Your task to perform on an android device: Open maps Image 0: 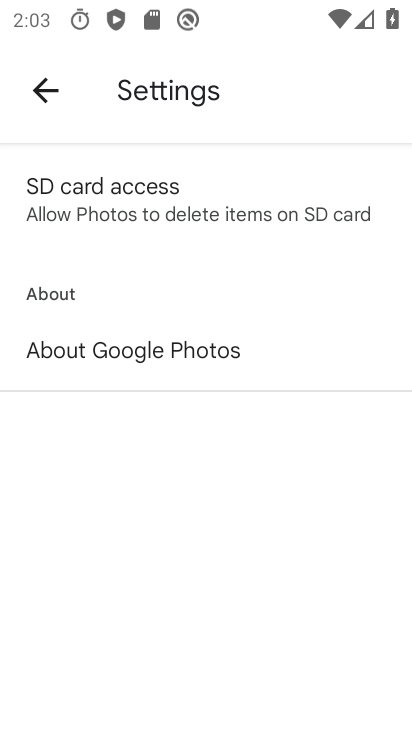
Step 0: press home button
Your task to perform on an android device: Open maps Image 1: 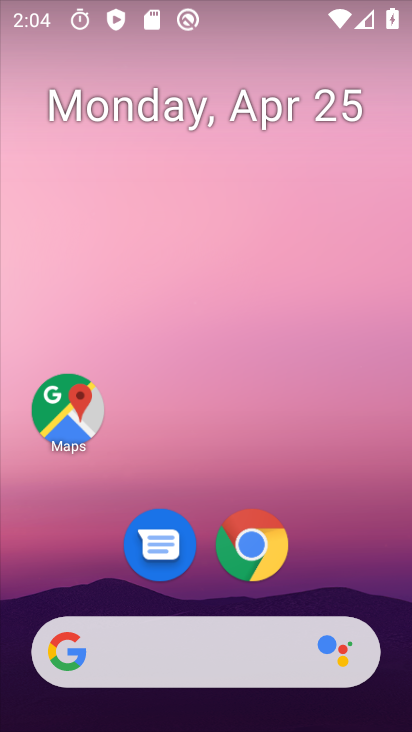
Step 1: click (69, 414)
Your task to perform on an android device: Open maps Image 2: 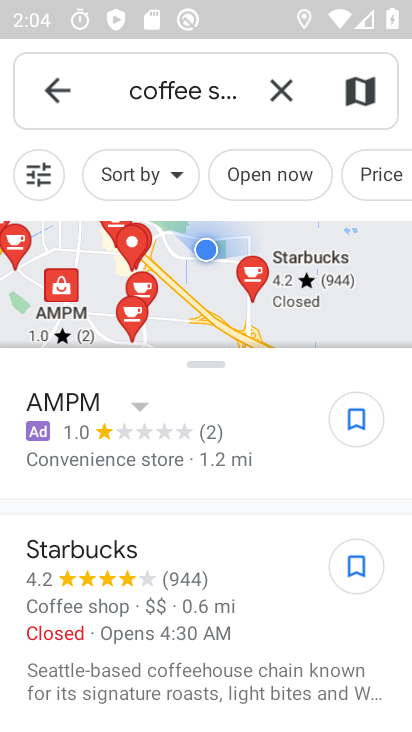
Step 2: task complete